Your task to perform on an android device: Go to internet settings Image 0: 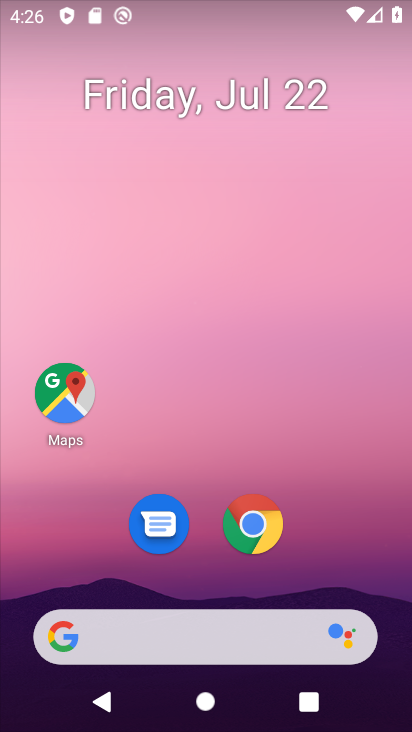
Step 0: drag from (306, 528) to (310, 49)
Your task to perform on an android device: Go to internet settings Image 1: 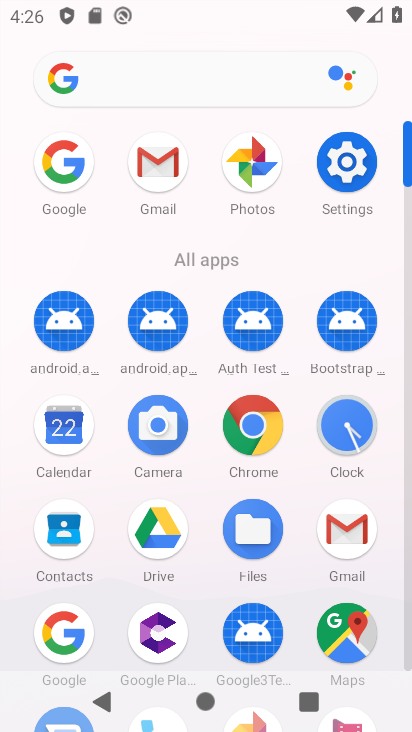
Step 1: click (353, 170)
Your task to perform on an android device: Go to internet settings Image 2: 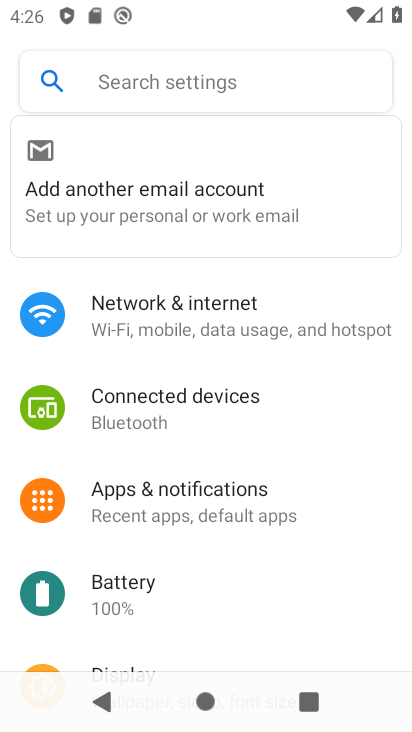
Step 2: click (220, 307)
Your task to perform on an android device: Go to internet settings Image 3: 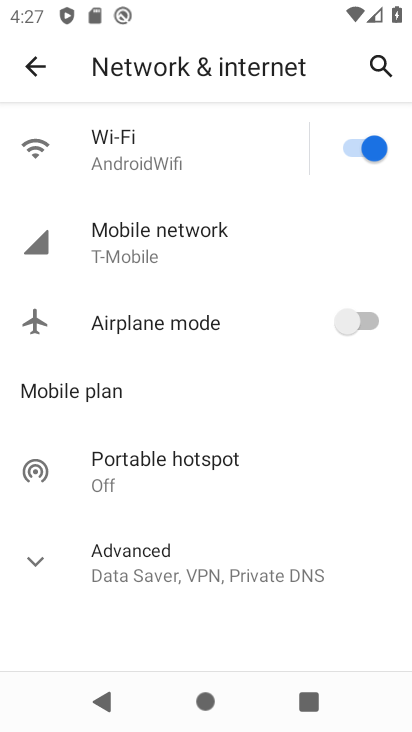
Step 3: task complete